Your task to perform on an android device: Show me popular videos on Youtube Image 0: 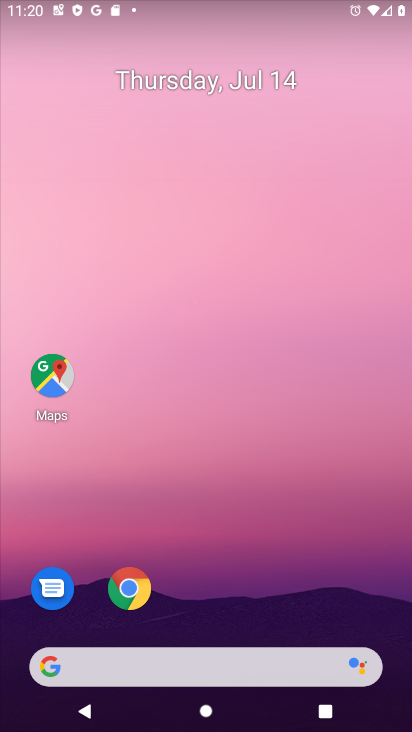
Step 0: press home button
Your task to perform on an android device: Show me popular videos on Youtube Image 1: 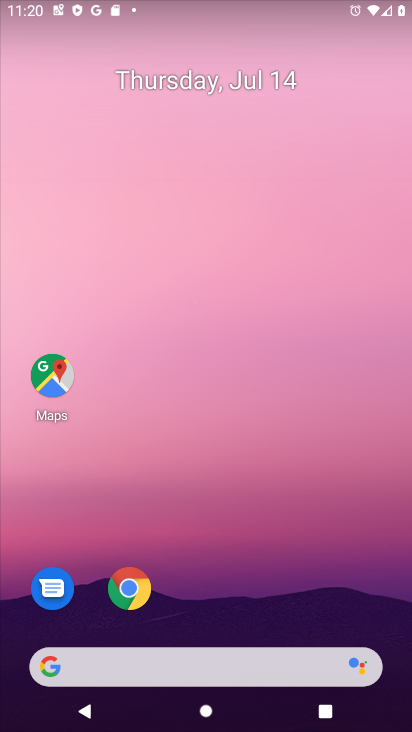
Step 1: drag from (273, 623) to (293, 56)
Your task to perform on an android device: Show me popular videos on Youtube Image 2: 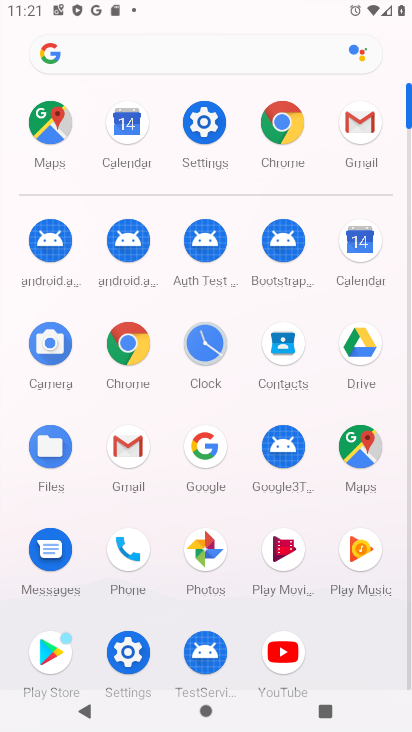
Step 2: click (288, 644)
Your task to perform on an android device: Show me popular videos on Youtube Image 3: 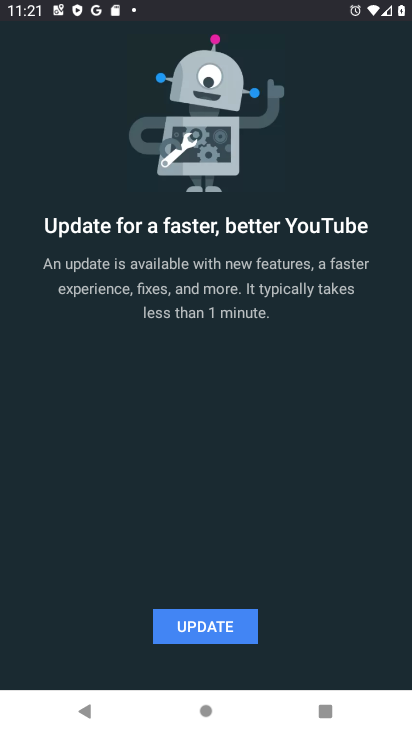
Step 3: click (207, 624)
Your task to perform on an android device: Show me popular videos on Youtube Image 4: 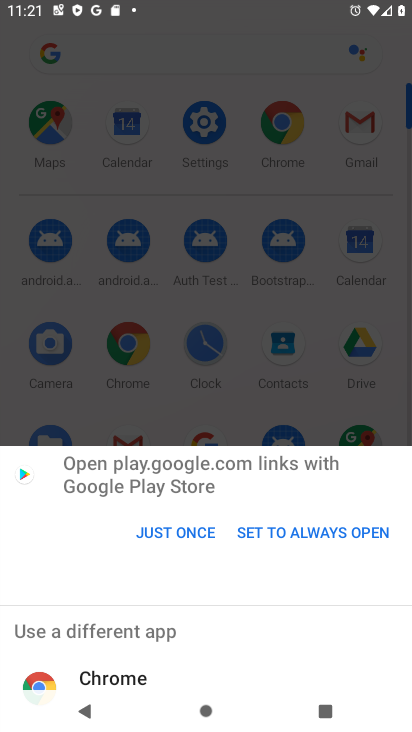
Step 4: click (185, 535)
Your task to perform on an android device: Show me popular videos on Youtube Image 5: 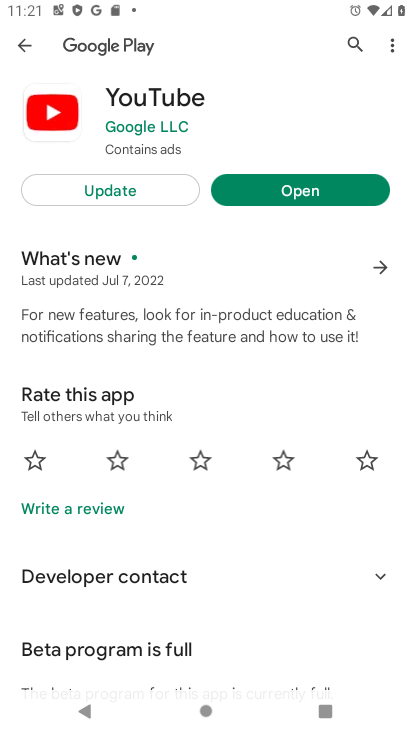
Step 5: click (185, 194)
Your task to perform on an android device: Show me popular videos on Youtube Image 6: 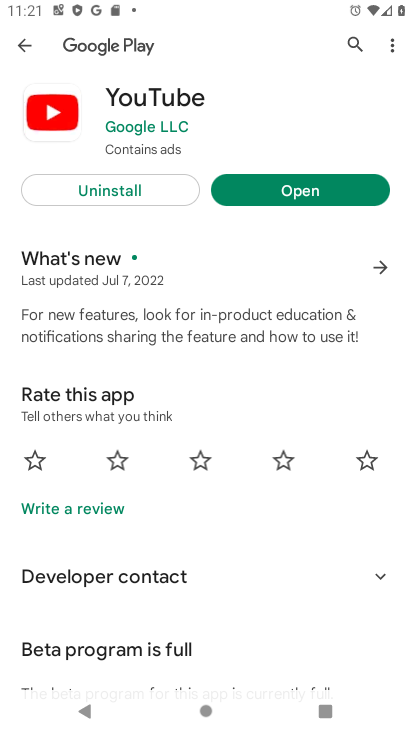
Step 6: click (323, 178)
Your task to perform on an android device: Show me popular videos on Youtube Image 7: 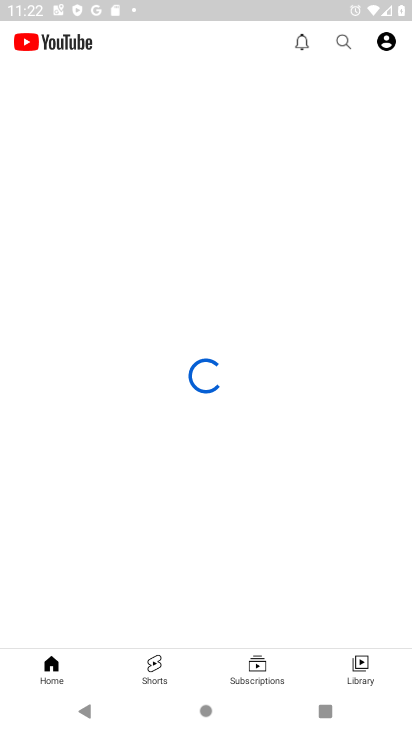
Step 7: click (346, 48)
Your task to perform on an android device: Show me popular videos on Youtube Image 8: 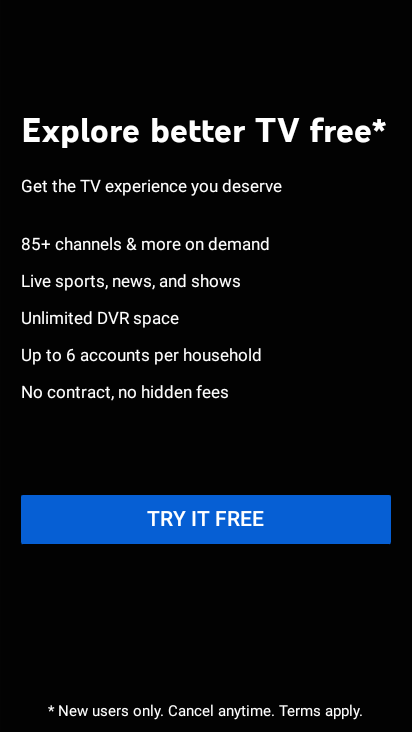
Step 8: click (349, 44)
Your task to perform on an android device: Show me popular videos on Youtube Image 9: 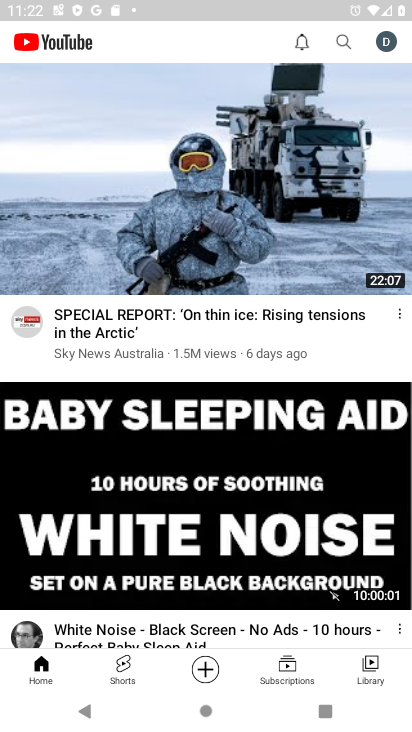
Step 9: click (344, 42)
Your task to perform on an android device: Show me popular videos on Youtube Image 10: 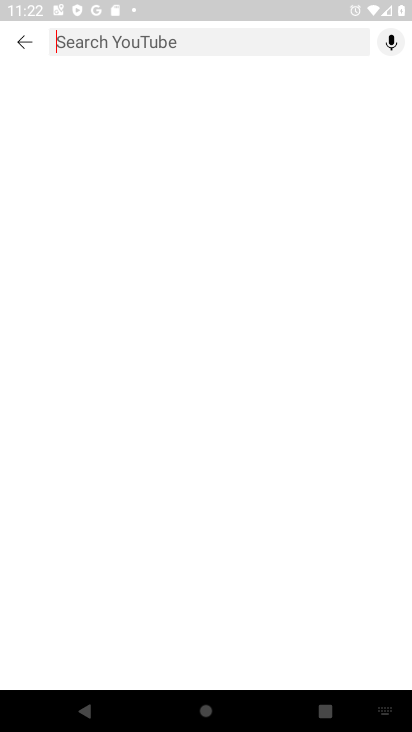
Step 10: type "popular videos on Youtube"
Your task to perform on an android device: Show me popular videos on Youtube Image 11: 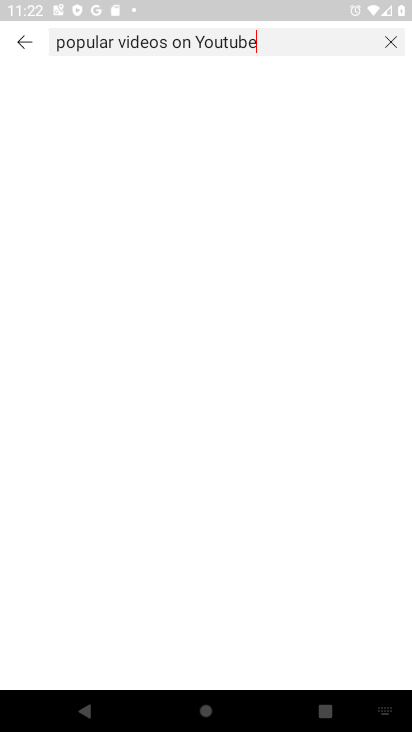
Step 11: type ""
Your task to perform on an android device: Show me popular videos on Youtube Image 12: 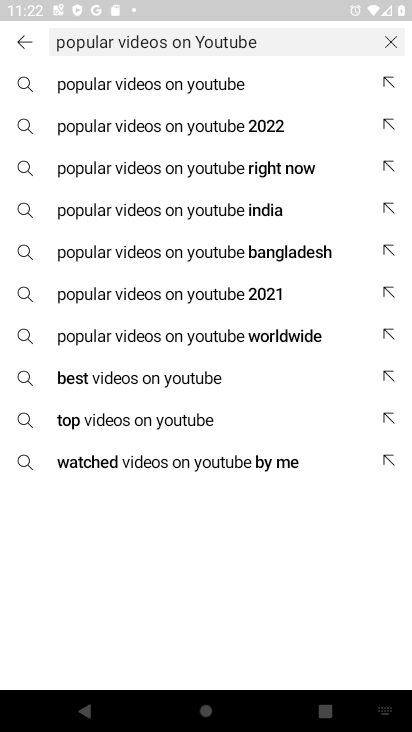
Step 12: click (114, 83)
Your task to perform on an android device: Show me popular videos on Youtube Image 13: 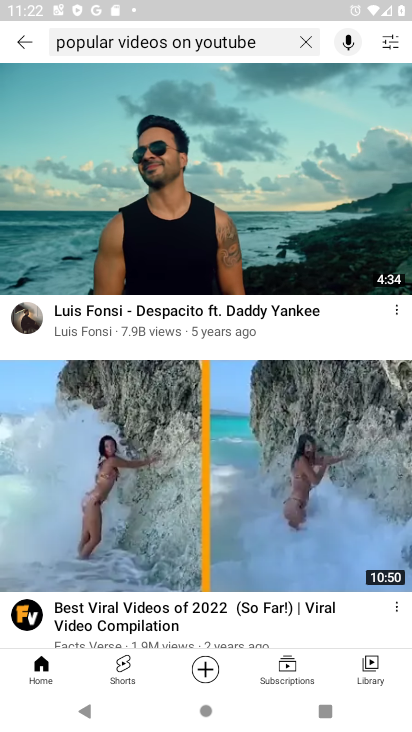
Step 13: task complete